Your task to perform on an android device: Show me recent news Image 0: 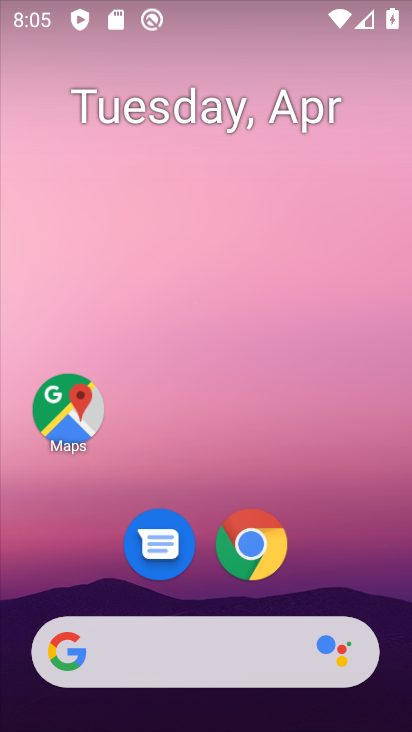
Step 0: drag from (3, 249) to (410, 189)
Your task to perform on an android device: Show me recent news Image 1: 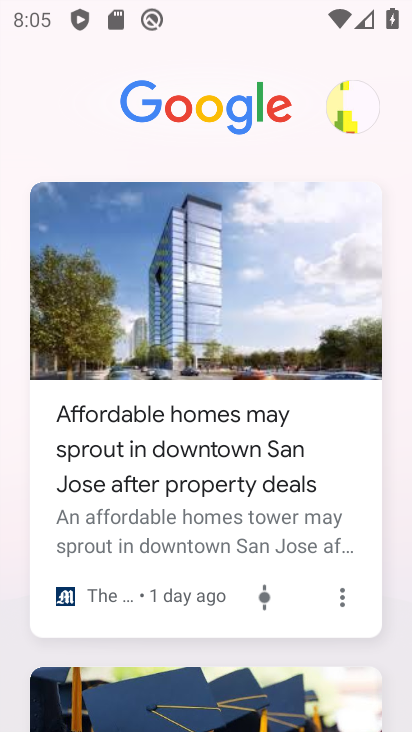
Step 1: task complete